Your task to perform on an android device: Open accessibility settings Image 0: 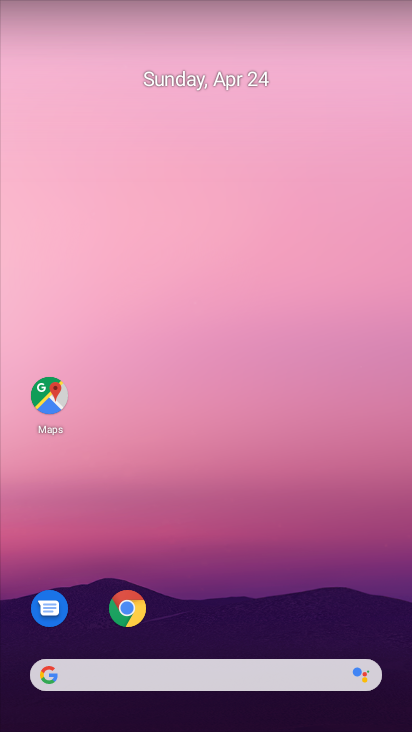
Step 0: drag from (285, 593) to (274, 69)
Your task to perform on an android device: Open accessibility settings Image 1: 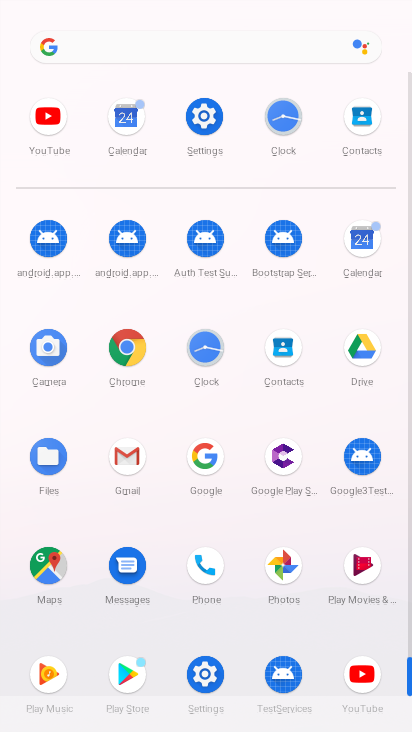
Step 1: click (203, 119)
Your task to perform on an android device: Open accessibility settings Image 2: 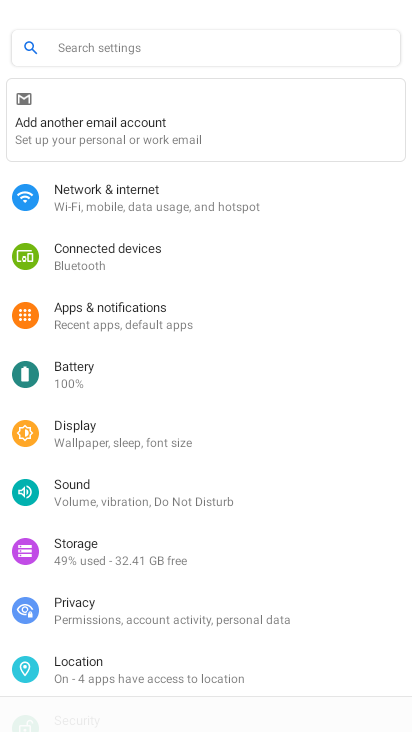
Step 2: drag from (223, 638) to (233, 218)
Your task to perform on an android device: Open accessibility settings Image 3: 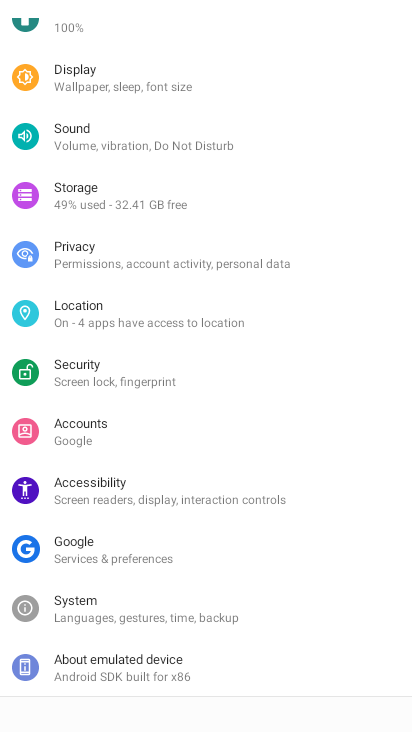
Step 3: click (215, 494)
Your task to perform on an android device: Open accessibility settings Image 4: 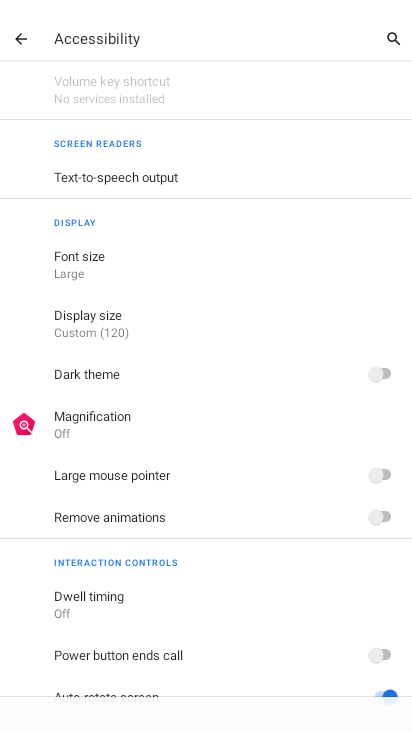
Step 4: task complete